Your task to perform on an android device: Open Yahoo.com Image 0: 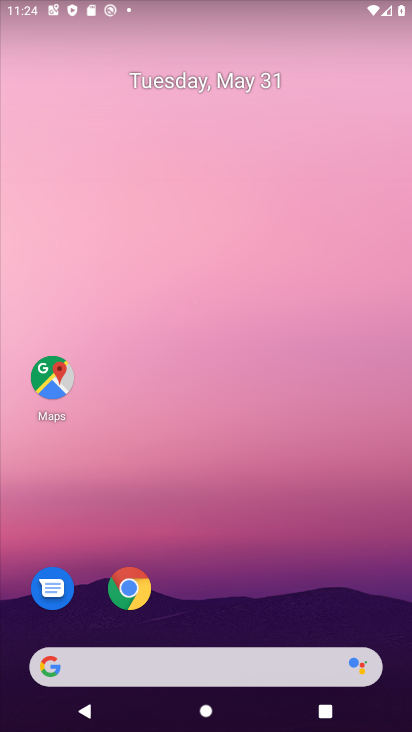
Step 0: press home button
Your task to perform on an android device: Open Yahoo.com Image 1: 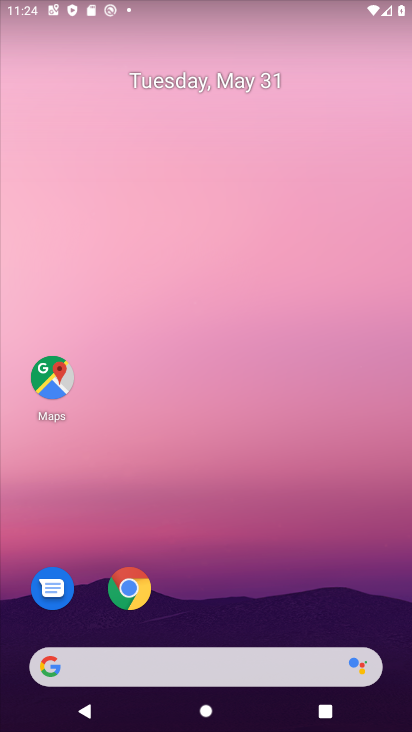
Step 1: click (115, 585)
Your task to perform on an android device: Open Yahoo.com Image 2: 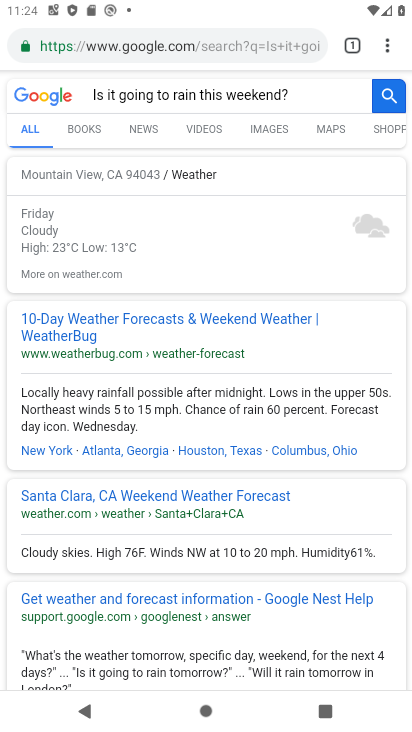
Step 2: click (314, 108)
Your task to perform on an android device: Open Yahoo.com Image 3: 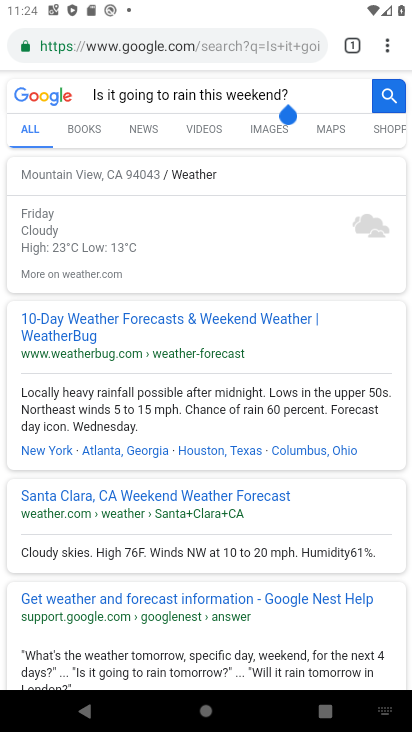
Step 3: drag from (283, 95) to (106, 94)
Your task to perform on an android device: Open Yahoo.com Image 4: 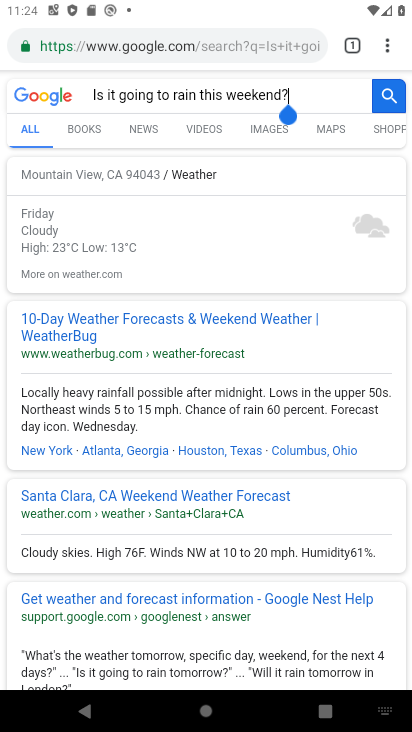
Step 4: click (253, 53)
Your task to perform on an android device: Open Yahoo.com Image 5: 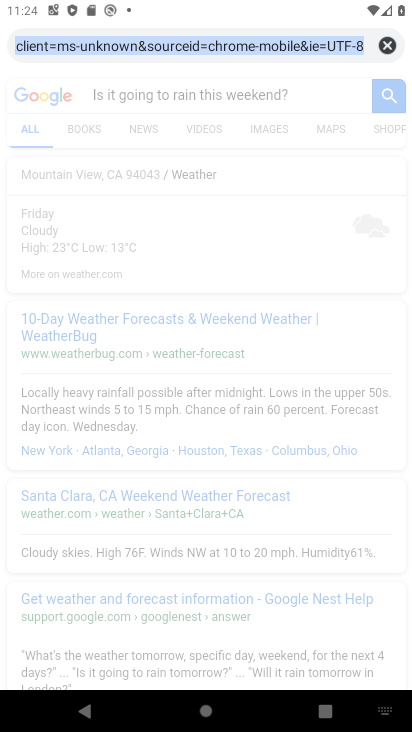
Step 5: type "yahoo.com"
Your task to perform on an android device: Open Yahoo.com Image 6: 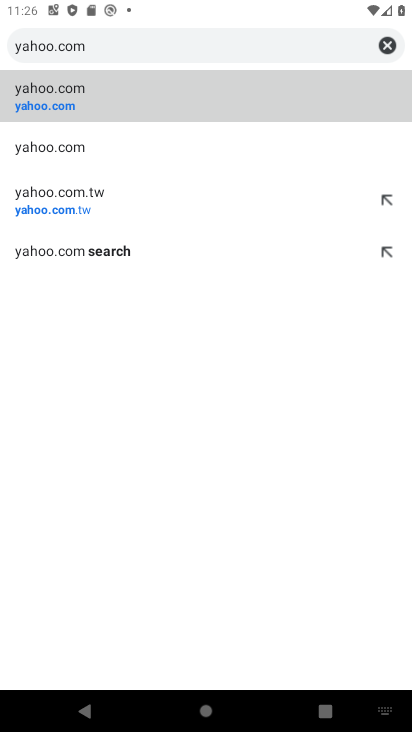
Step 6: click (109, 111)
Your task to perform on an android device: Open Yahoo.com Image 7: 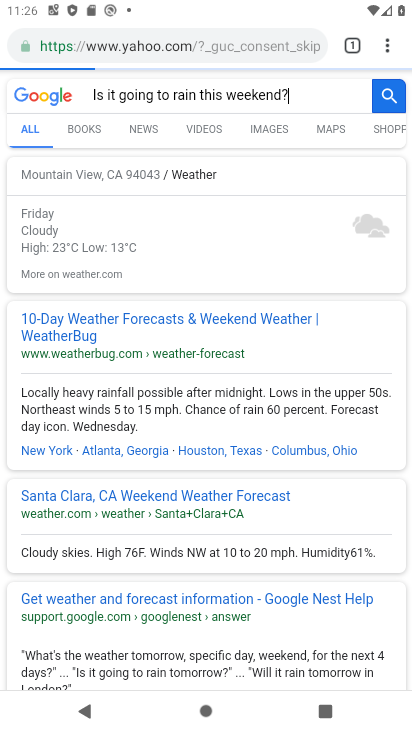
Step 7: task complete